Your task to perform on an android device: turn notification dots off Image 0: 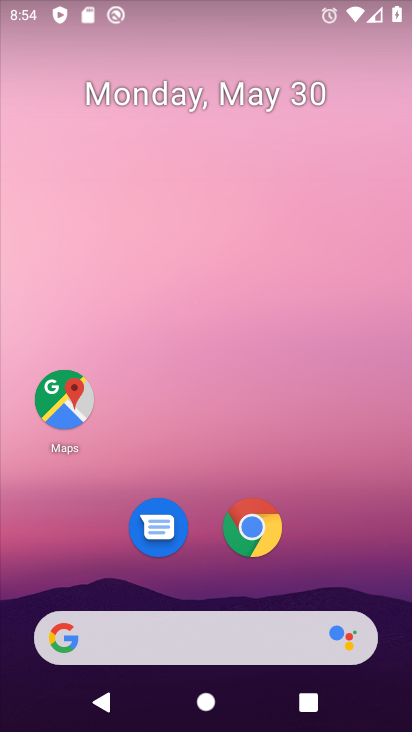
Step 0: drag from (172, 649) to (203, 49)
Your task to perform on an android device: turn notification dots off Image 1: 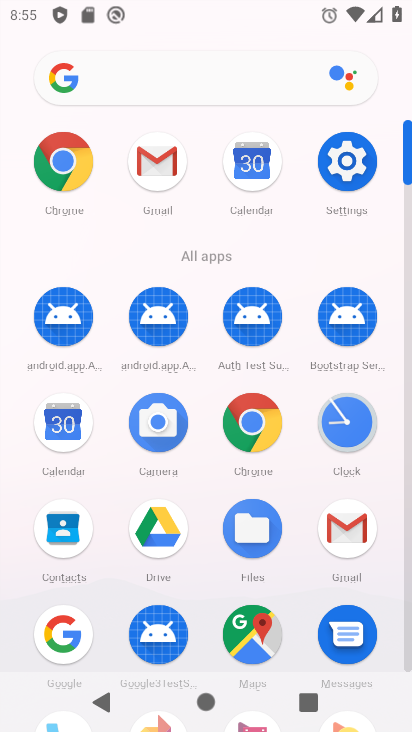
Step 1: click (336, 152)
Your task to perform on an android device: turn notification dots off Image 2: 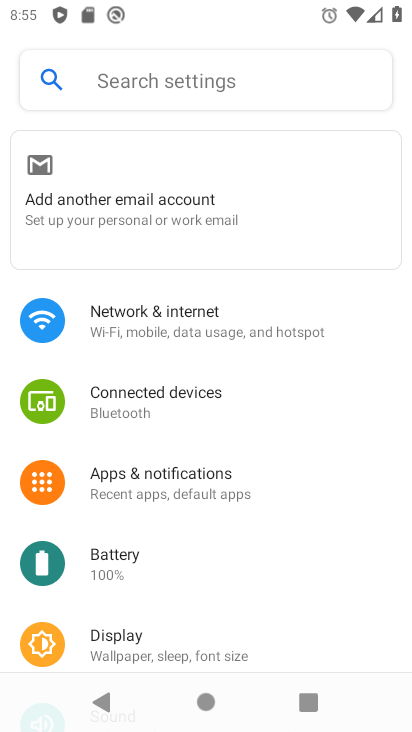
Step 2: click (176, 491)
Your task to perform on an android device: turn notification dots off Image 3: 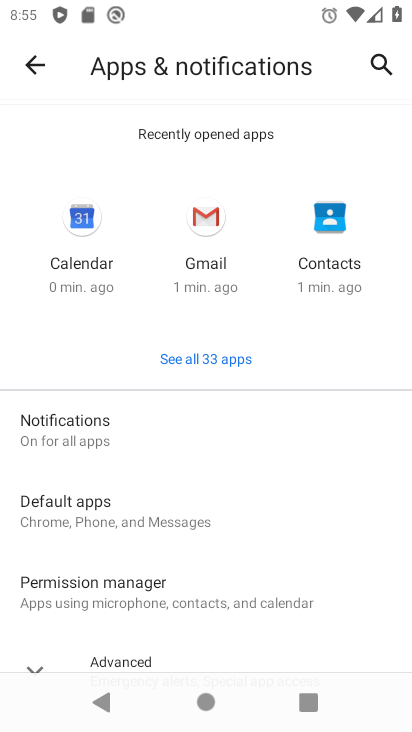
Step 3: click (130, 435)
Your task to perform on an android device: turn notification dots off Image 4: 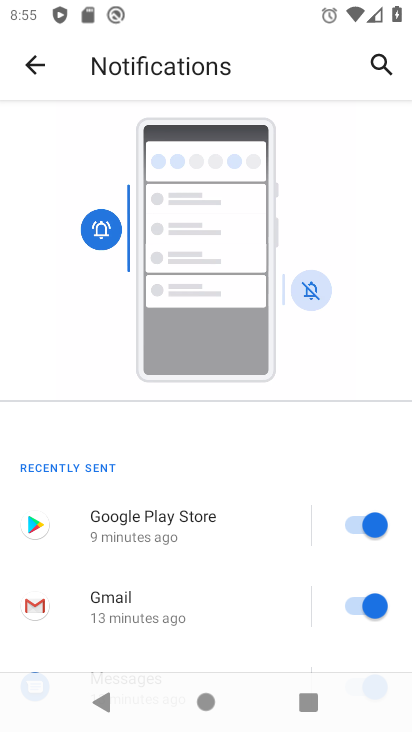
Step 4: drag from (31, 541) to (149, 28)
Your task to perform on an android device: turn notification dots off Image 5: 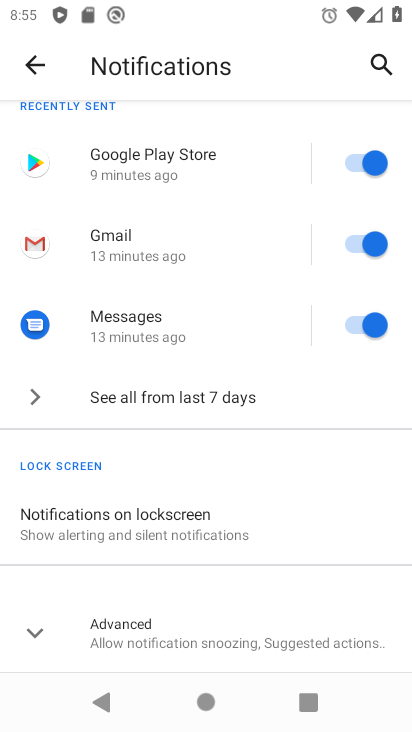
Step 5: click (135, 627)
Your task to perform on an android device: turn notification dots off Image 6: 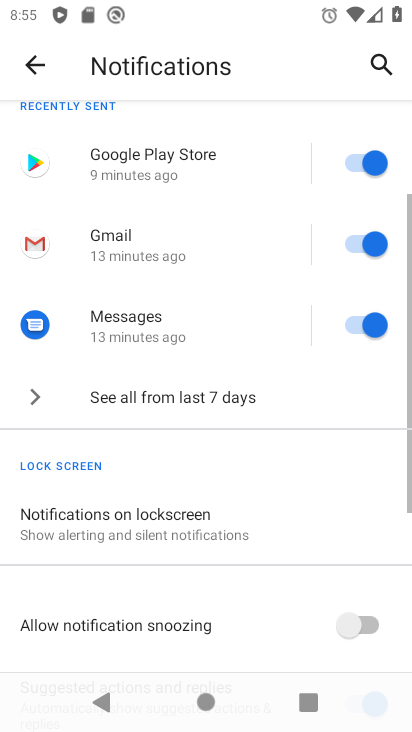
Step 6: drag from (165, 646) to (280, 94)
Your task to perform on an android device: turn notification dots off Image 7: 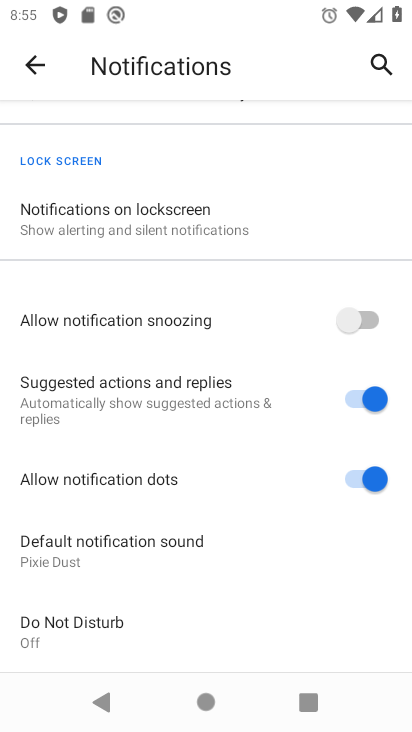
Step 7: click (365, 475)
Your task to perform on an android device: turn notification dots off Image 8: 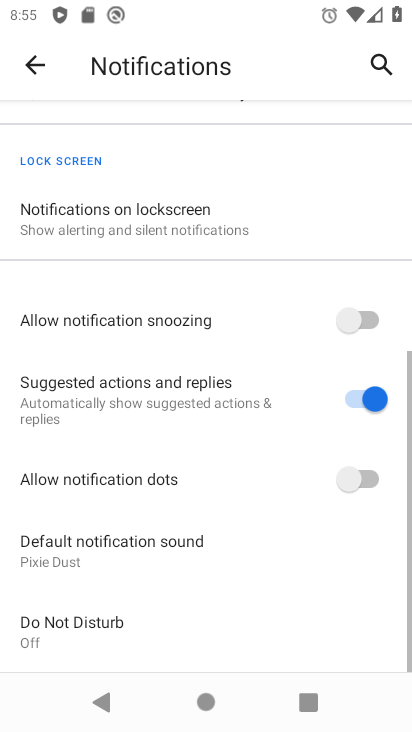
Step 8: task complete